Your task to perform on an android device: see creations saved in the google photos Image 0: 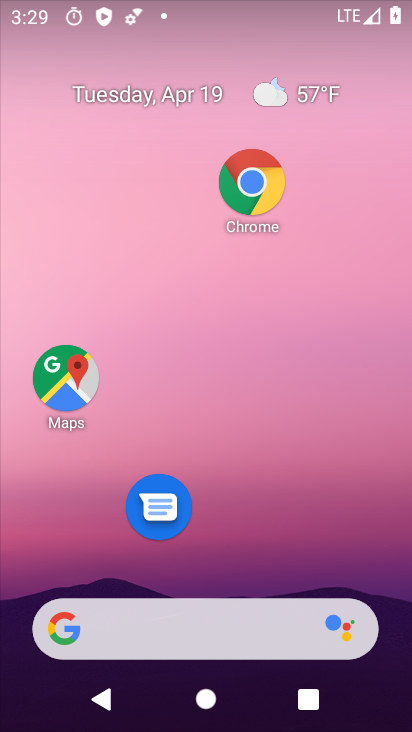
Step 0: drag from (277, 316) to (297, 46)
Your task to perform on an android device: see creations saved in the google photos Image 1: 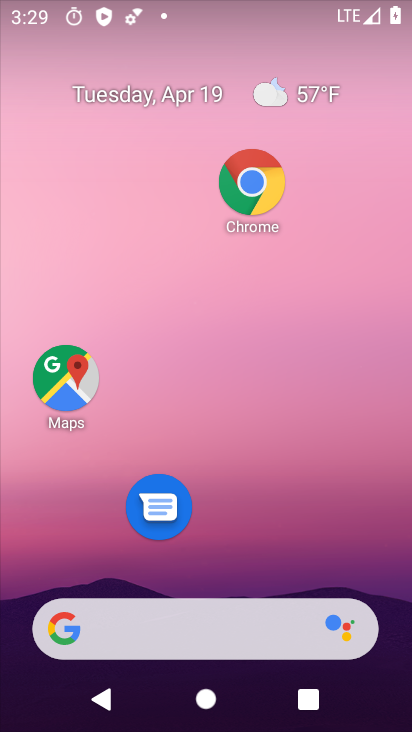
Step 1: drag from (278, 409) to (307, 52)
Your task to perform on an android device: see creations saved in the google photos Image 2: 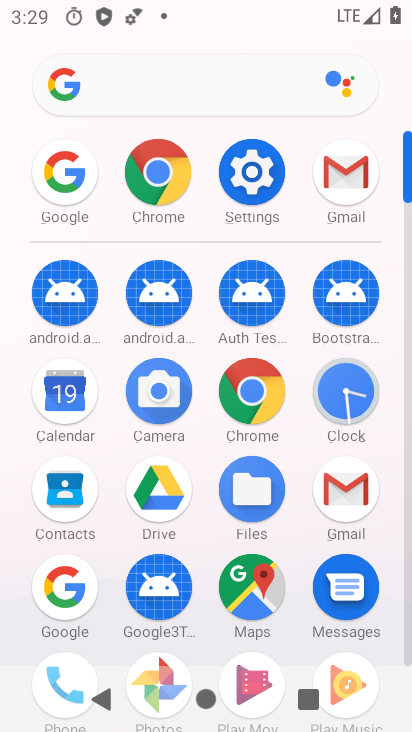
Step 2: drag from (253, 486) to (256, 250)
Your task to perform on an android device: see creations saved in the google photos Image 3: 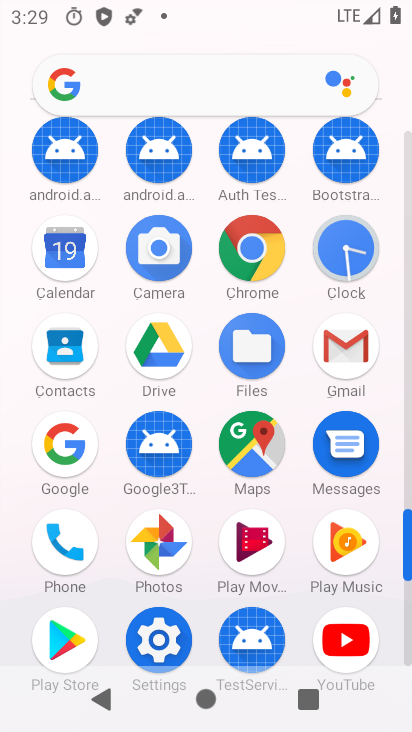
Step 3: click (149, 569)
Your task to perform on an android device: see creations saved in the google photos Image 4: 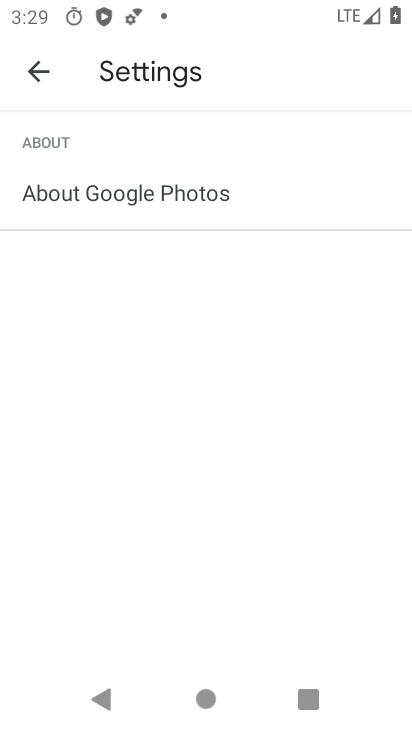
Step 4: click (43, 68)
Your task to perform on an android device: see creations saved in the google photos Image 5: 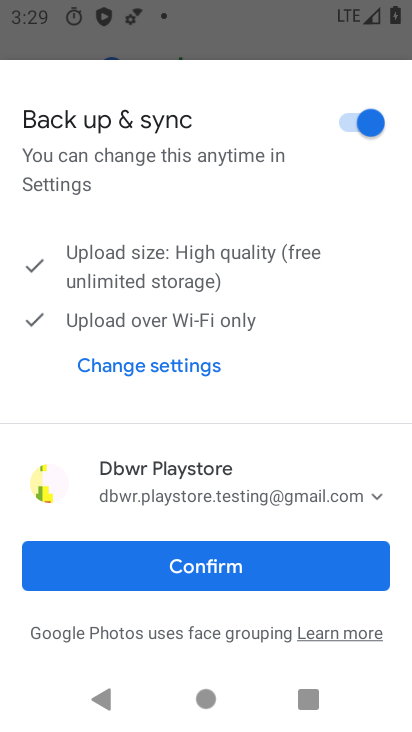
Step 5: click (245, 585)
Your task to perform on an android device: see creations saved in the google photos Image 6: 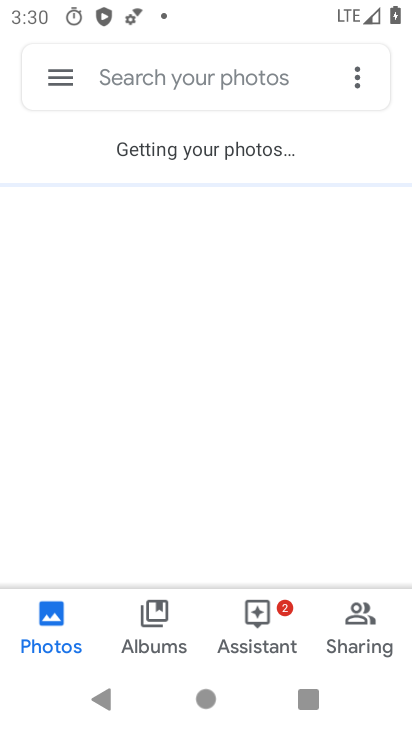
Step 6: click (237, 638)
Your task to perform on an android device: see creations saved in the google photos Image 7: 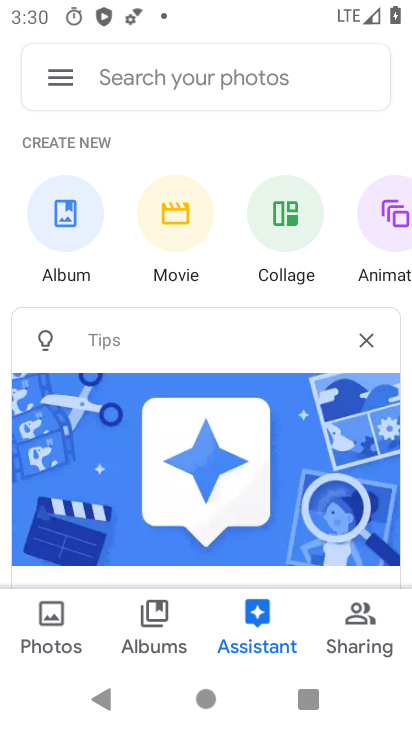
Step 7: task complete